Your task to perform on an android device: turn off notifications settings in the gmail app Image 0: 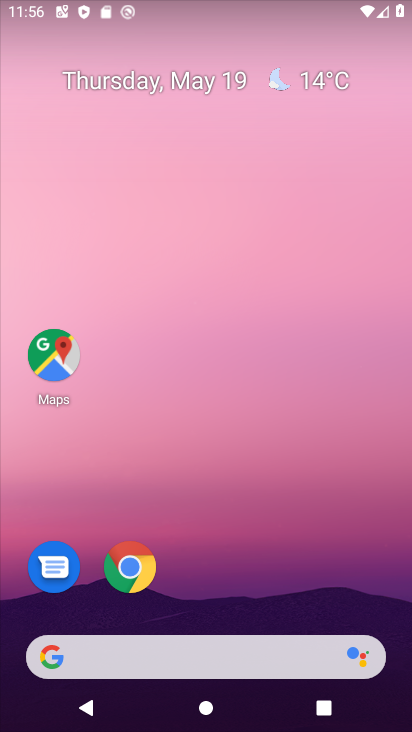
Step 0: drag from (338, 581) to (388, 32)
Your task to perform on an android device: turn off notifications settings in the gmail app Image 1: 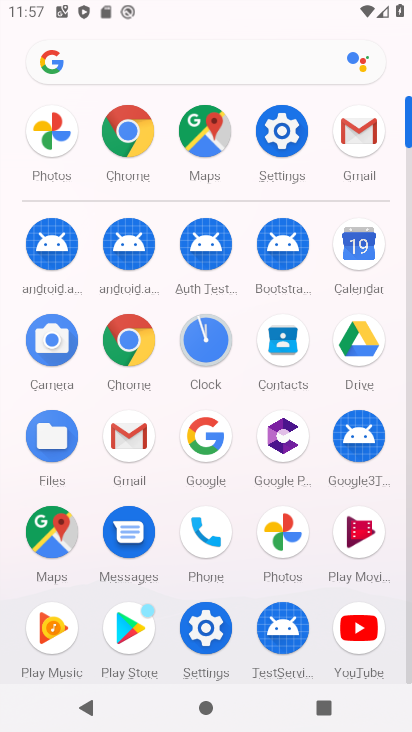
Step 1: click (348, 138)
Your task to perform on an android device: turn off notifications settings in the gmail app Image 2: 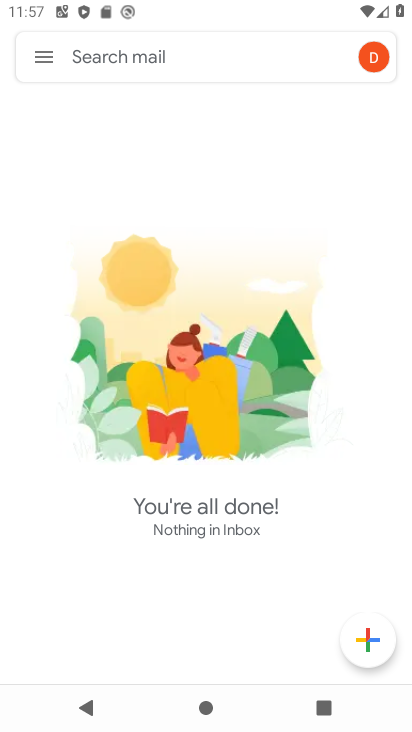
Step 2: click (47, 60)
Your task to perform on an android device: turn off notifications settings in the gmail app Image 3: 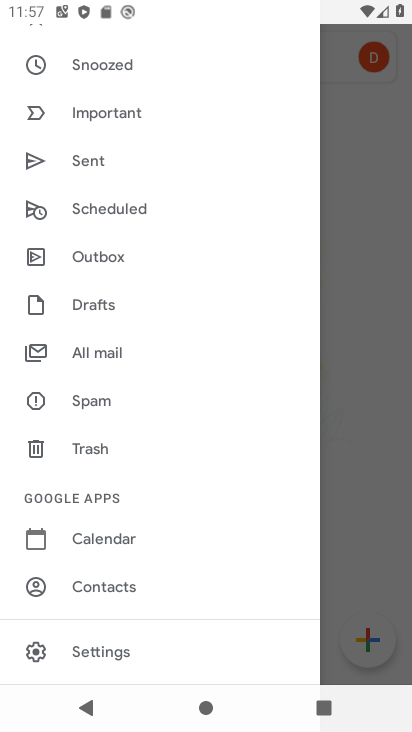
Step 3: click (86, 669)
Your task to perform on an android device: turn off notifications settings in the gmail app Image 4: 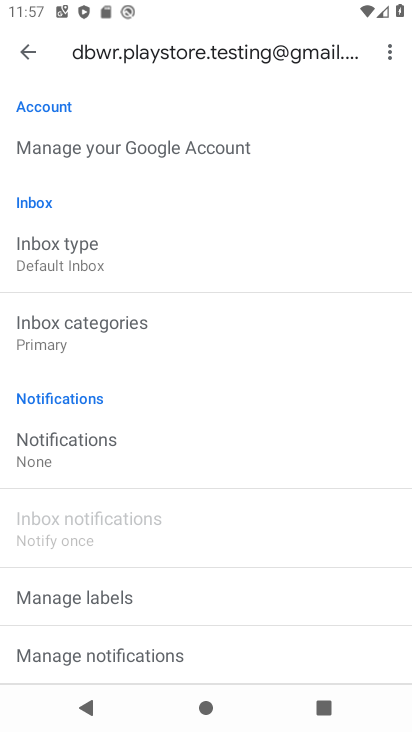
Step 4: click (102, 449)
Your task to perform on an android device: turn off notifications settings in the gmail app Image 5: 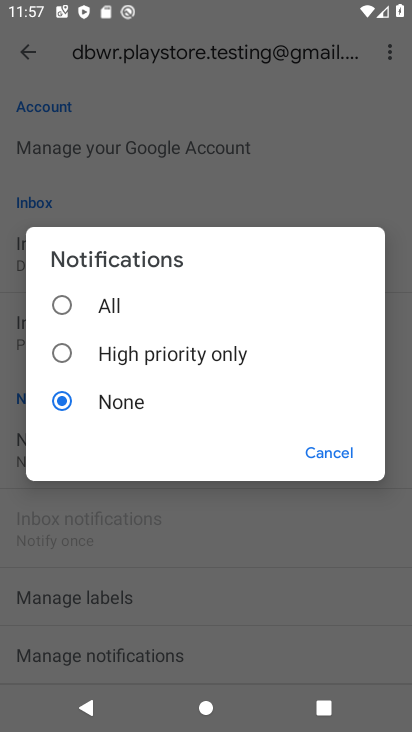
Step 5: task complete